Your task to perform on an android device: Go to settings Image 0: 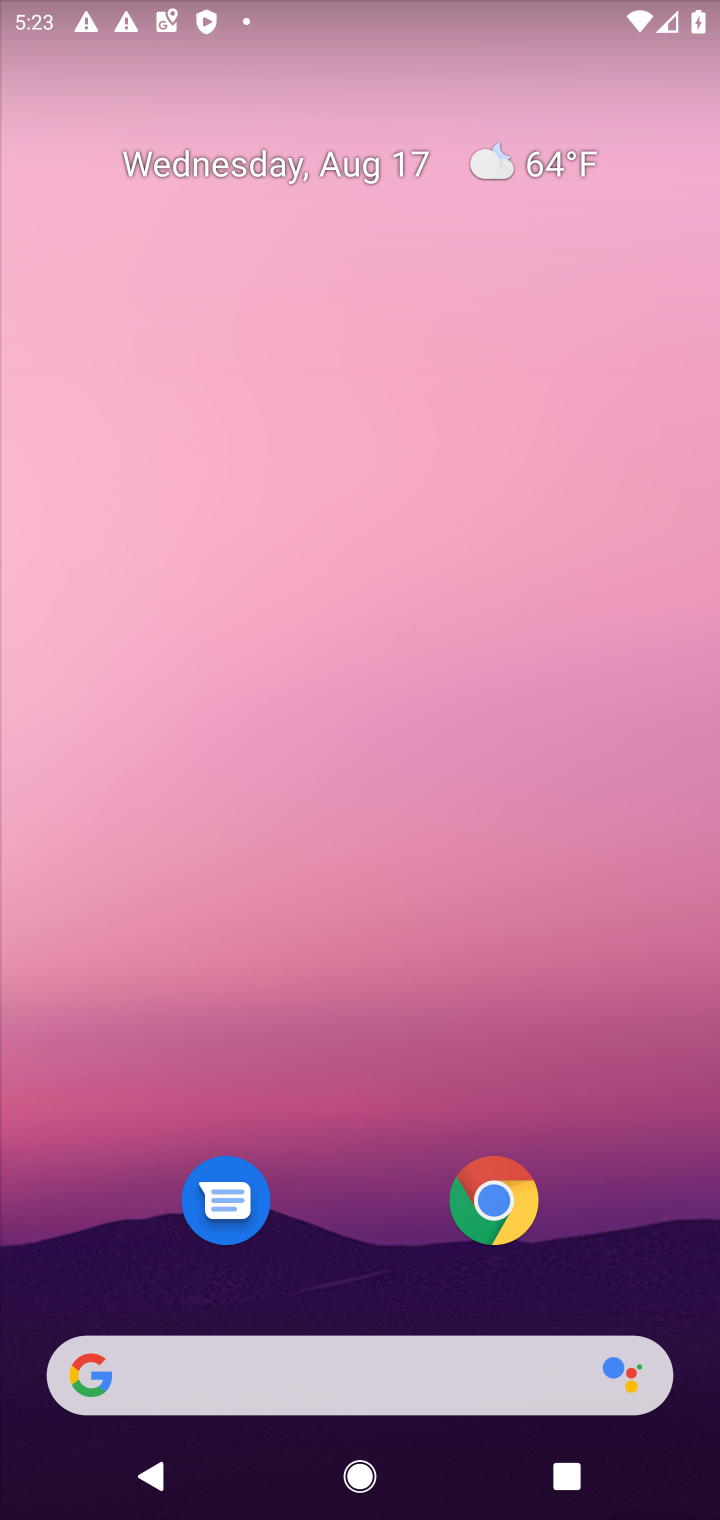
Step 0: drag from (338, 1016) to (338, 56)
Your task to perform on an android device: Go to settings Image 1: 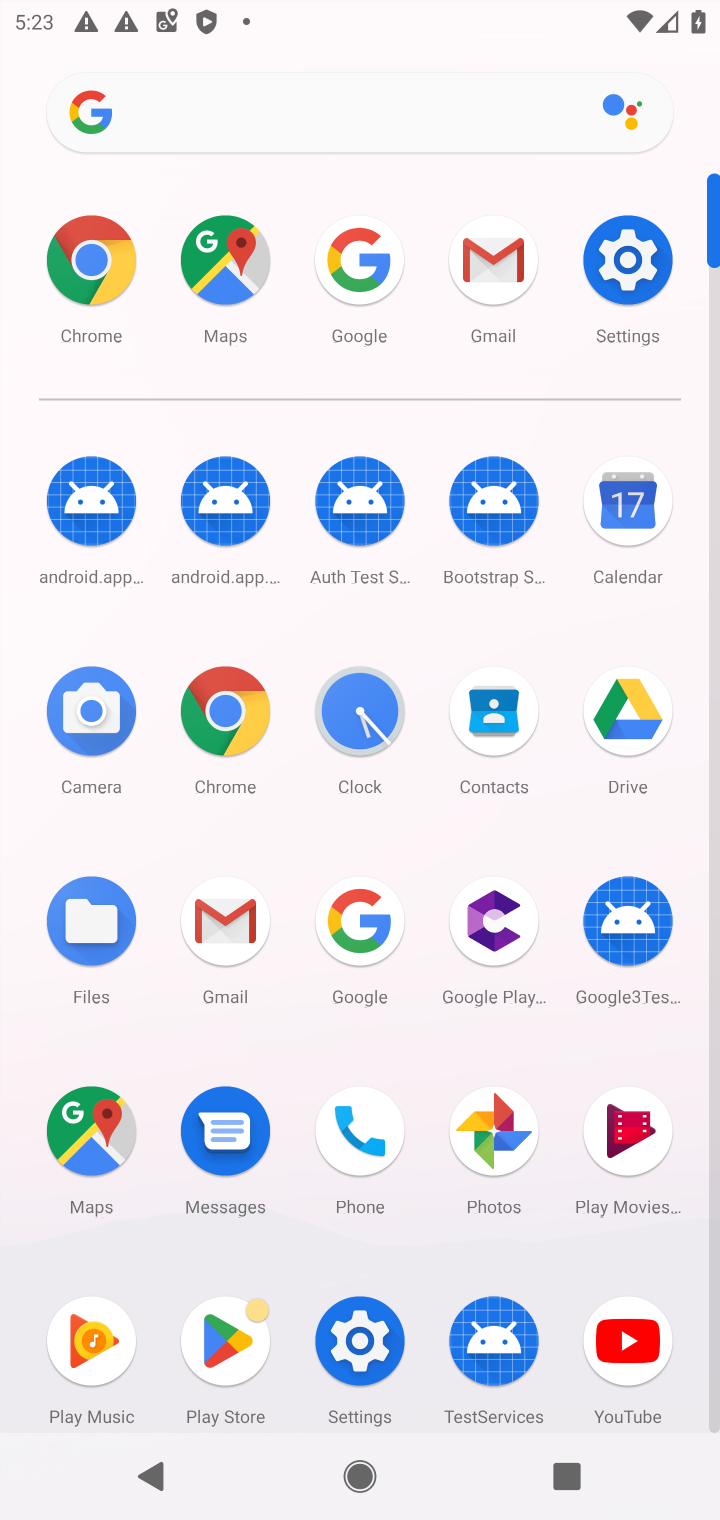
Step 1: click (624, 240)
Your task to perform on an android device: Go to settings Image 2: 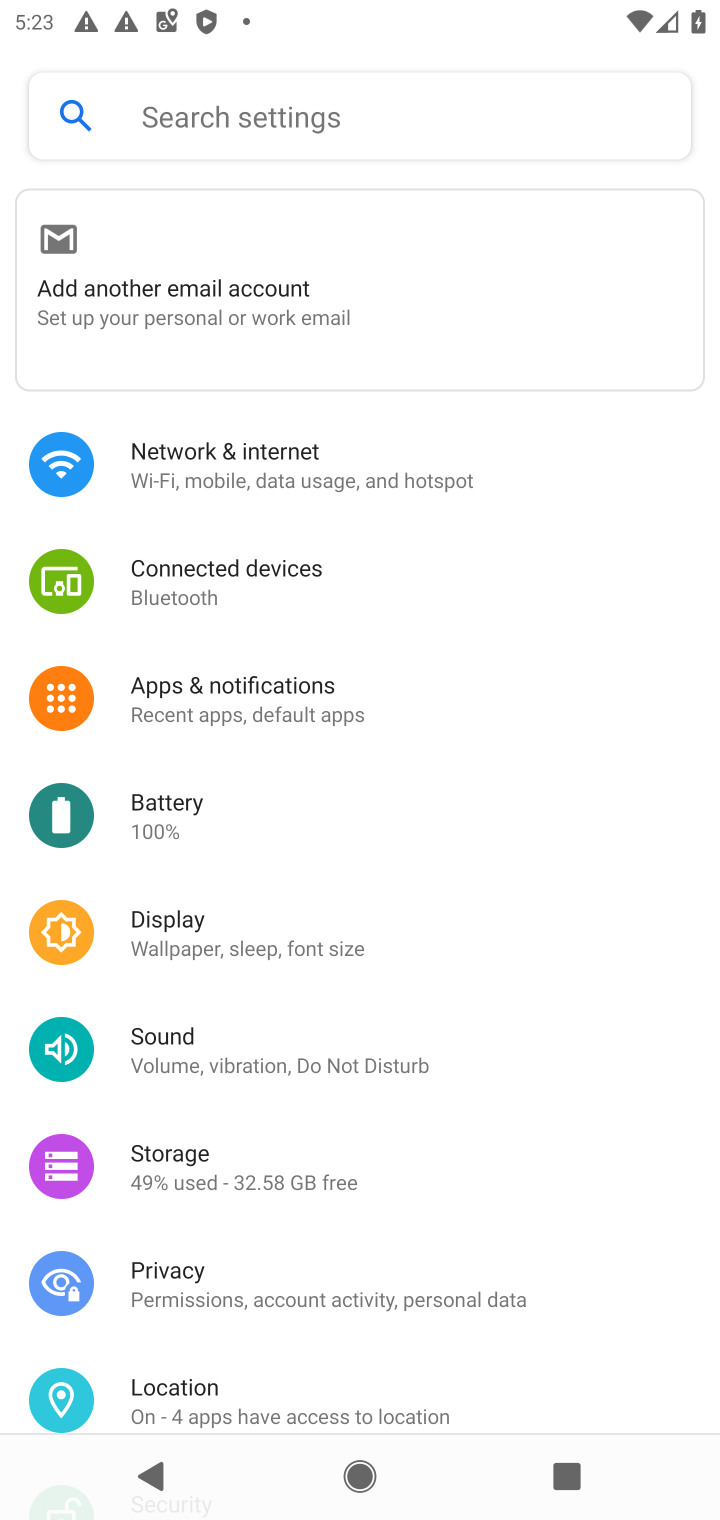
Step 2: task complete